Your task to perform on an android device: Open Youtube and go to the subscriptions tab Image 0: 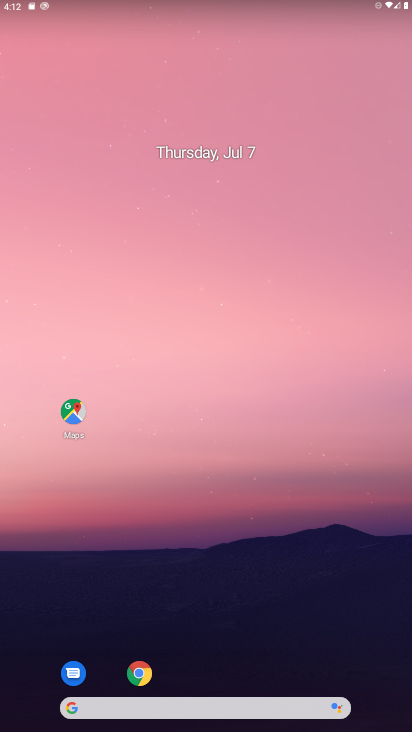
Step 0: drag from (209, 680) to (209, 2)
Your task to perform on an android device: Open Youtube and go to the subscriptions tab Image 1: 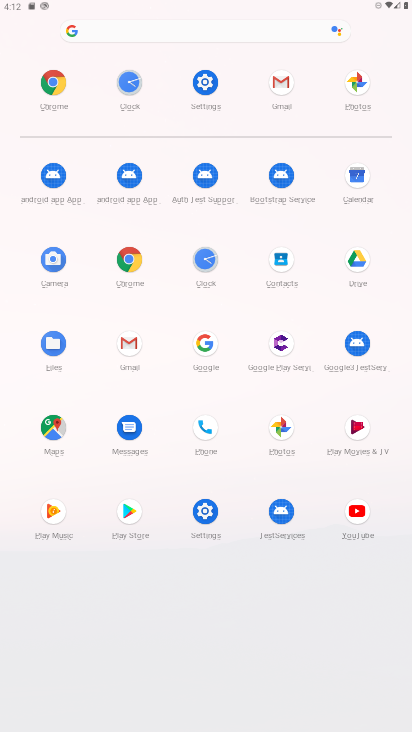
Step 1: drag from (220, 676) to (201, 95)
Your task to perform on an android device: Open Youtube and go to the subscriptions tab Image 2: 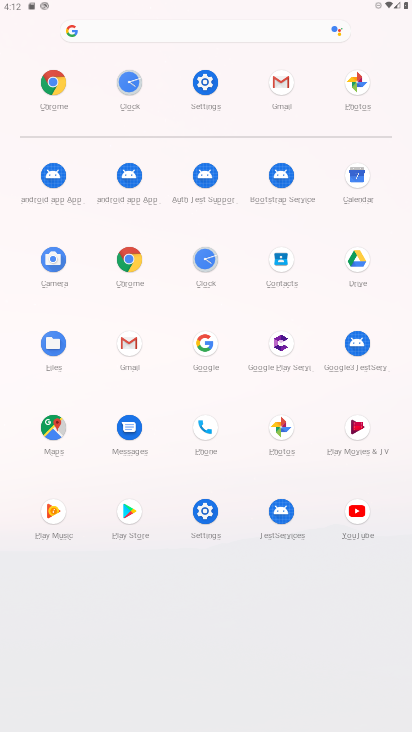
Step 2: click (357, 505)
Your task to perform on an android device: Open Youtube and go to the subscriptions tab Image 3: 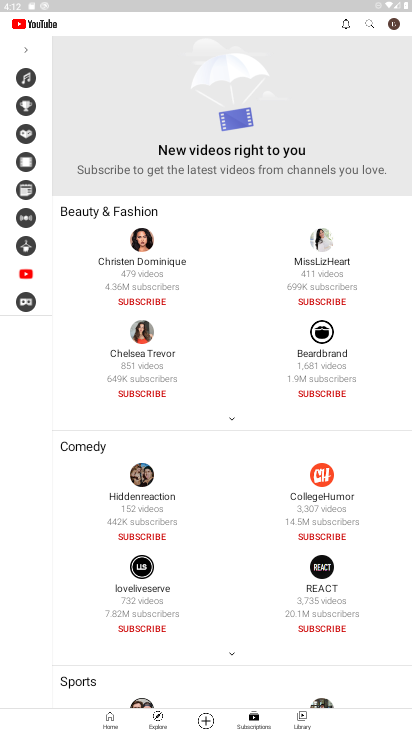
Step 3: click (233, 653)
Your task to perform on an android device: Open Youtube and go to the subscriptions tab Image 4: 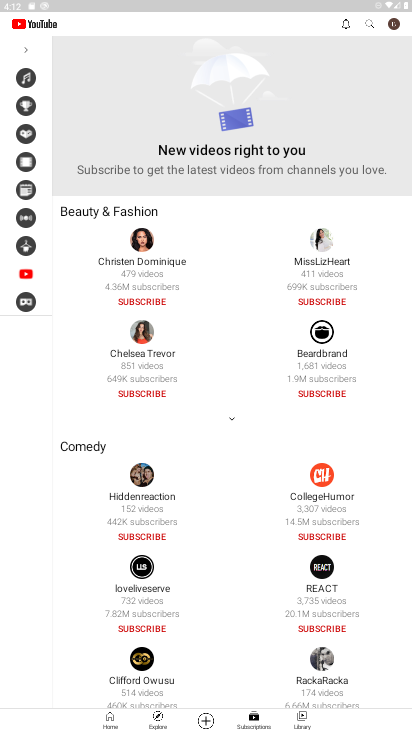
Step 4: drag from (233, 652) to (234, 107)
Your task to perform on an android device: Open Youtube and go to the subscriptions tab Image 5: 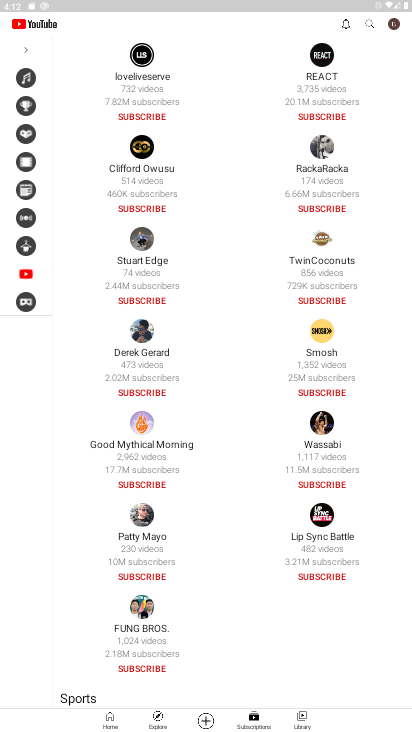
Step 5: click (324, 515)
Your task to perform on an android device: Open Youtube and go to the subscriptions tab Image 6: 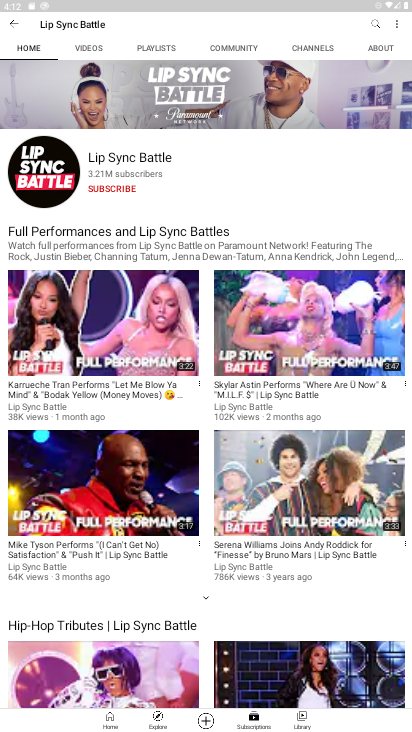
Step 6: task complete